Your task to perform on an android device: Open battery settings Image 0: 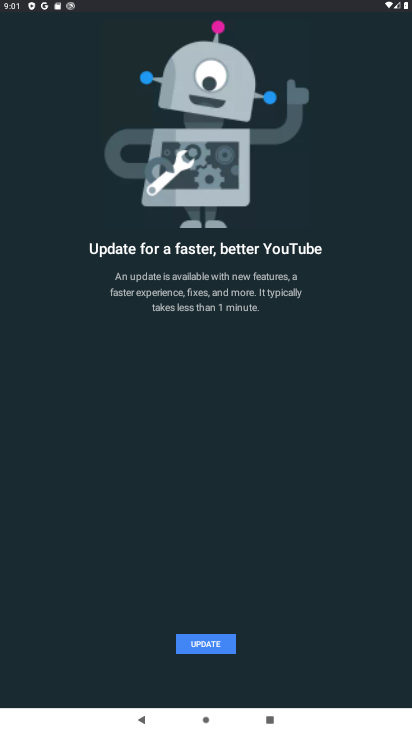
Step 0: press home button
Your task to perform on an android device: Open battery settings Image 1: 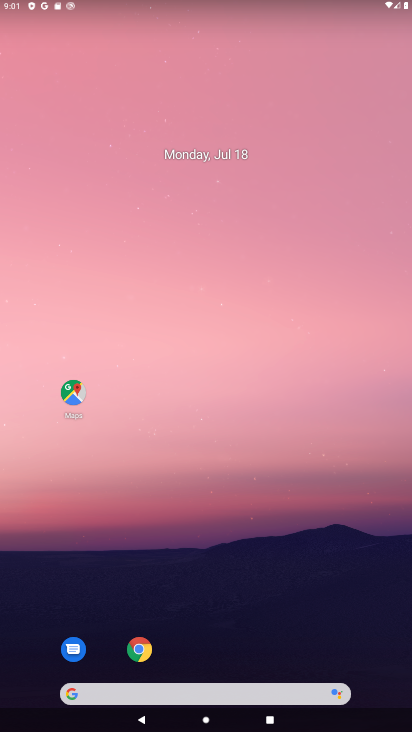
Step 1: drag from (87, 691) to (6, 3)
Your task to perform on an android device: Open battery settings Image 2: 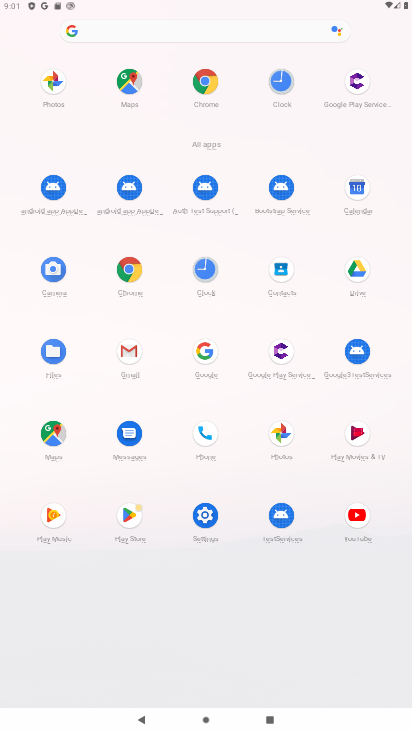
Step 2: click (284, 82)
Your task to perform on an android device: Open battery settings Image 3: 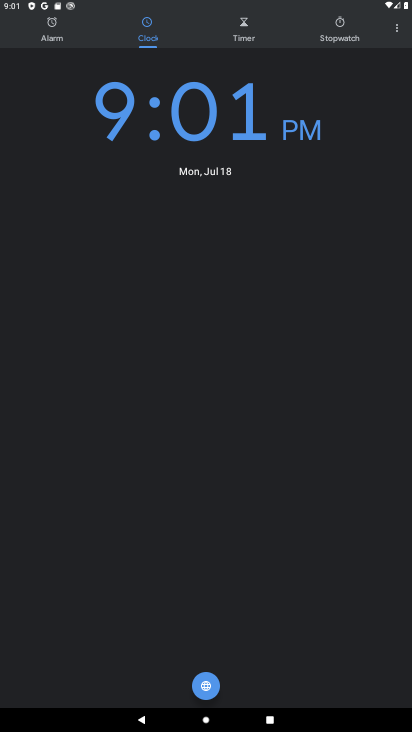
Step 3: press home button
Your task to perform on an android device: Open battery settings Image 4: 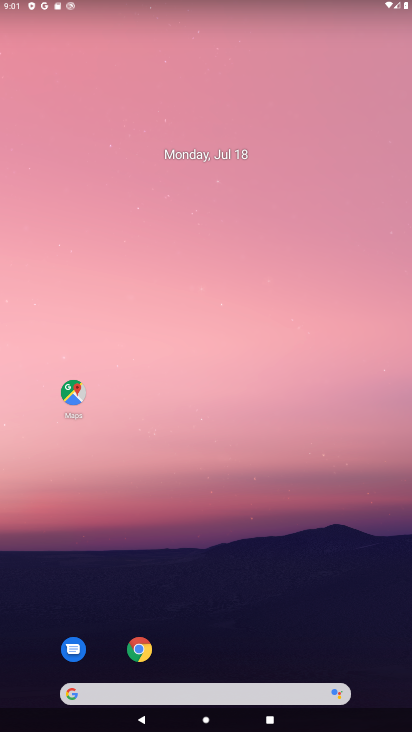
Step 4: drag from (270, 677) to (257, 151)
Your task to perform on an android device: Open battery settings Image 5: 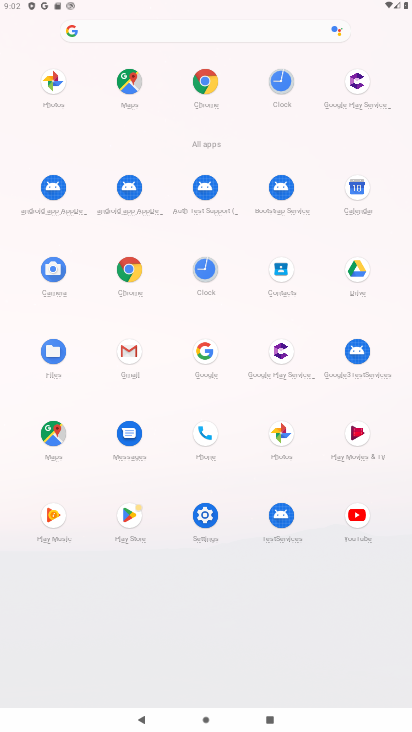
Step 5: click (200, 515)
Your task to perform on an android device: Open battery settings Image 6: 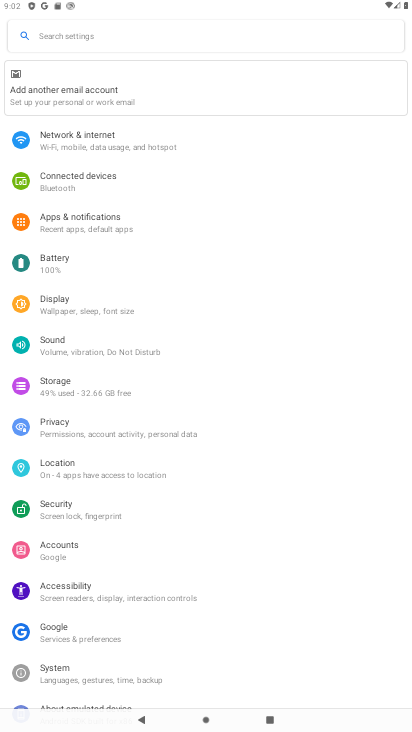
Step 6: click (106, 302)
Your task to perform on an android device: Open battery settings Image 7: 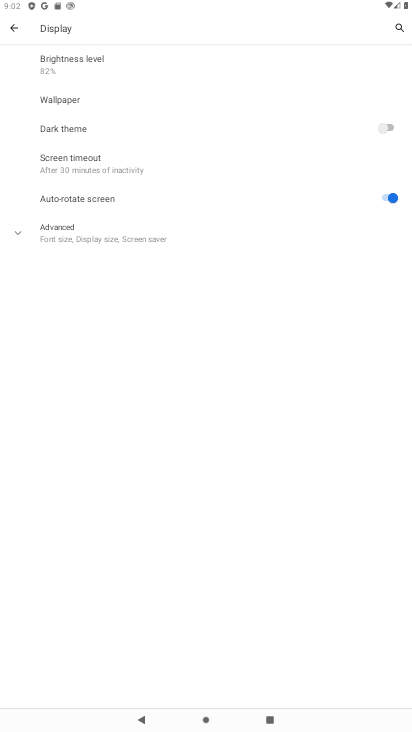
Step 7: task complete